Your task to perform on an android device: Go to Wikipedia Image 0: 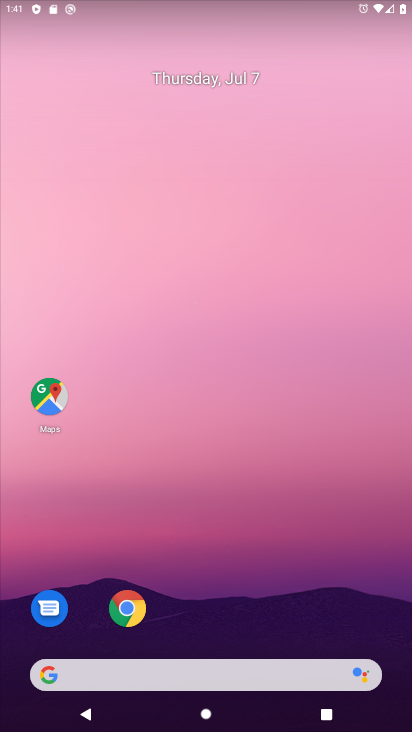
Step 0: click (130, 609)
Your task to perform on an android device: Go to Wikipedia Image 1: 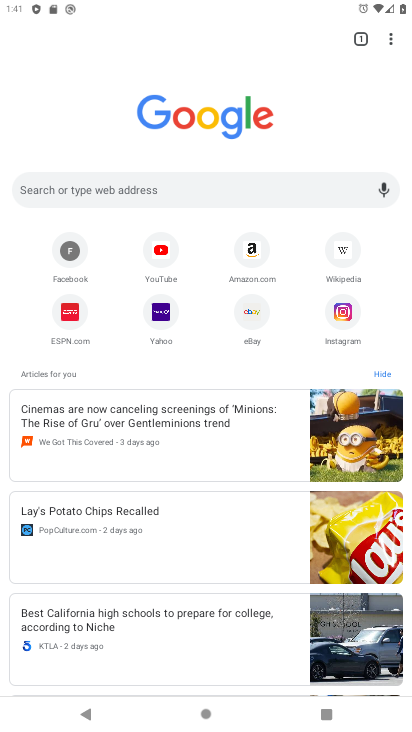
Step 1: click (344, 251)
Your task to perform on an android device: Go to Wikipedia Image 2: 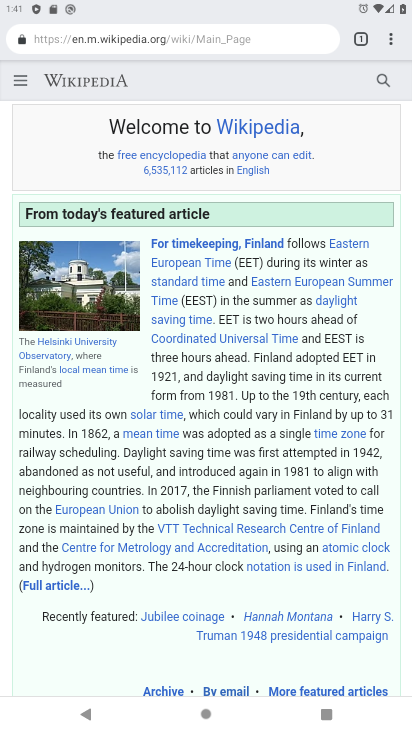
Step 2: task complete